Your task to perform on an android device: visit the assistant section in the google photos Image 0: 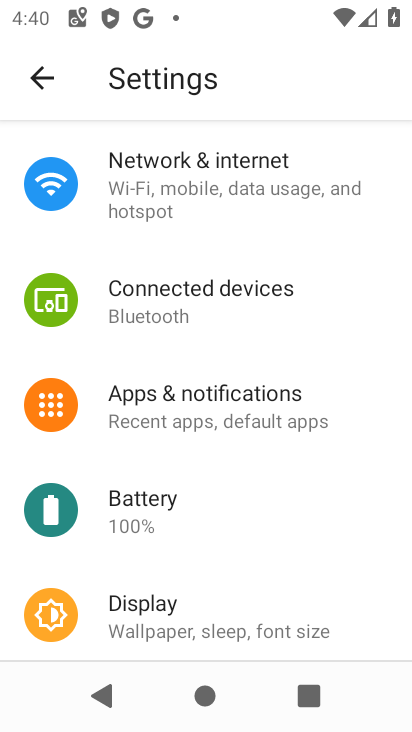
Step 0: press back button
Your task to perform on an android device: visit the assistant section in the google photos Image 1: 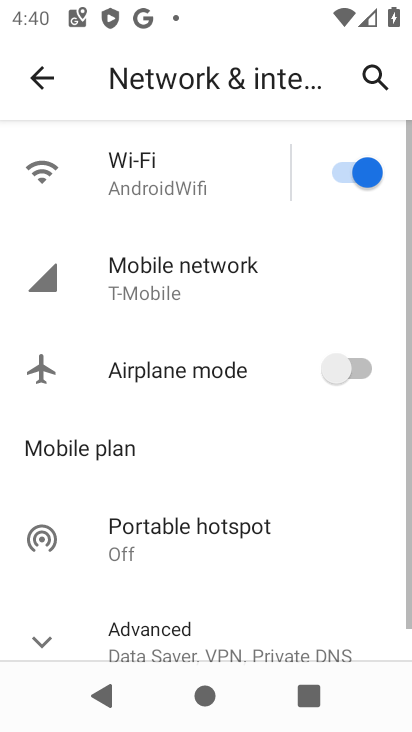
Step 1: press back button
Your task to perform on an android device: visit the assistant section in the google photos Image 2: 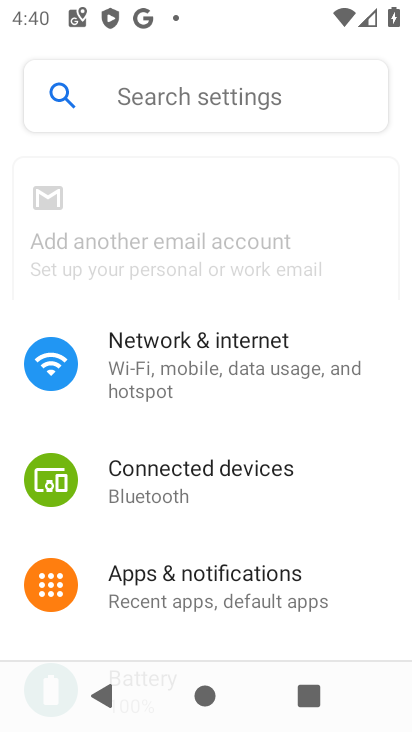
Step 2: press back button
Your task to perform on an android device: visit the assistant section in the google photos Image 3: 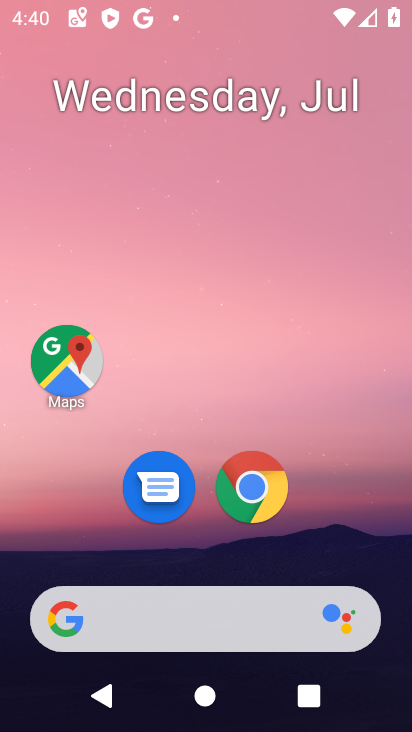
Step 3: press back button
Your task to perform on an android device: visit the assistant section in the google photos Image 4: 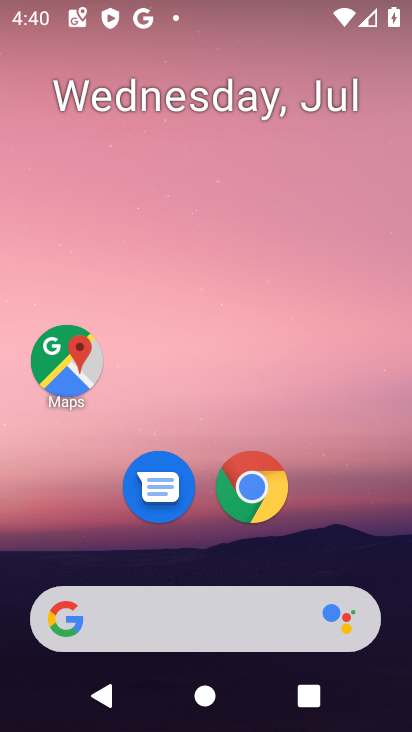
Step 4: drag from (154, 564) to (277, 37)
Your task to perform on an android device: visit the assistant section in the google photos Image 5: 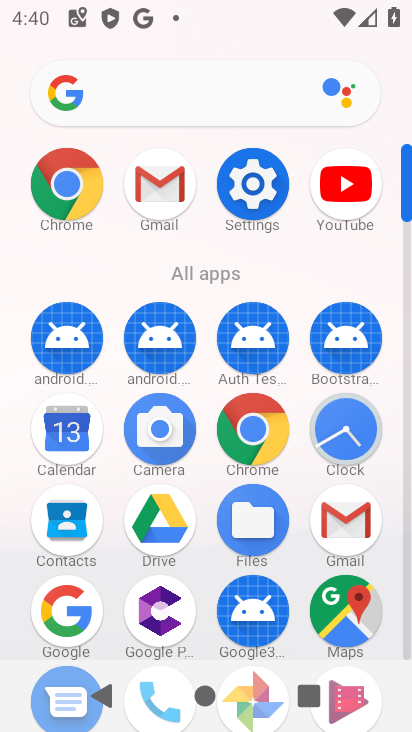
Step 5: drag from (211, 574) to (280, 237)
Your task to perform on an android device: visit the assistant section in the google photos Image 6: 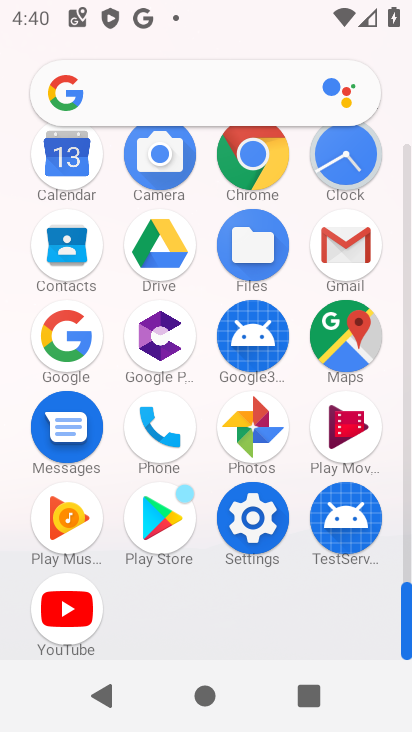
Step 6: click (247, 439)
Your task to perform on an android device: visit the assistant section in the google photos Image 7: 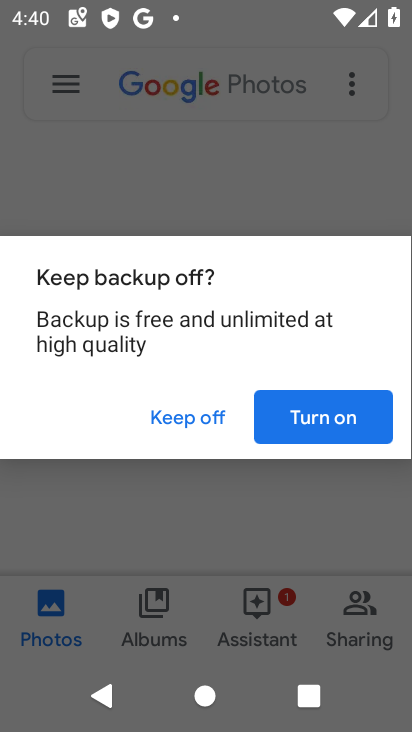
Step 7: click (197, 420)
Your task to perform on an android device: visit the assistant section in the google photos Image 8: 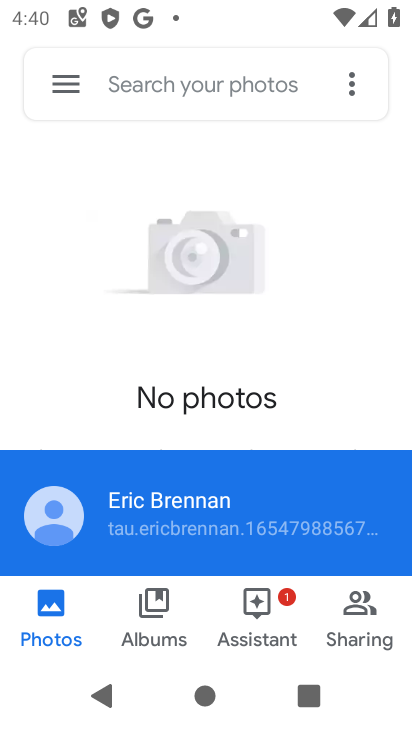
Step 8: click (258, 625)
Your task to perform on an android device: visit the assistant section in the google photos Image 9: 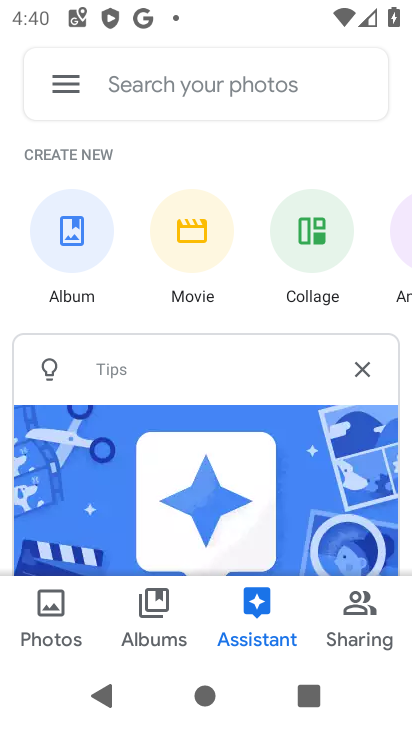
Step 9: task complete